Your task to perform on an android device: open the mobile data screen to see how much data has been used Image 0: 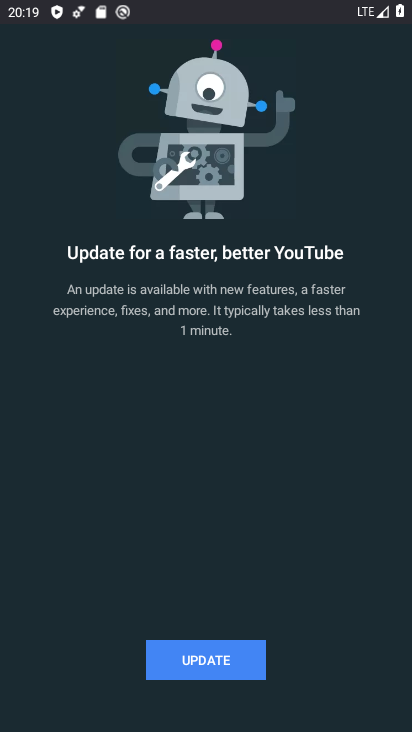
Step 0: press back button
Your task to perform on an android device: open the mobile data screen to see how much data has been used Image 1: 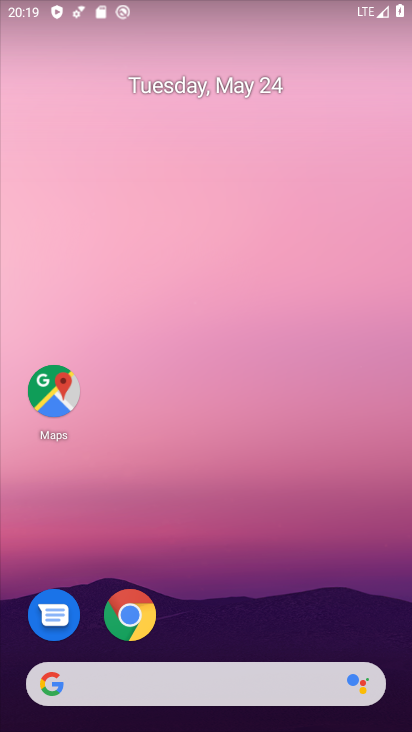
Step 1: drag from (283, 497) to (281, 248)
Your task to perform on an android device: open the mobile data screen to see how much data has been used Image 2: 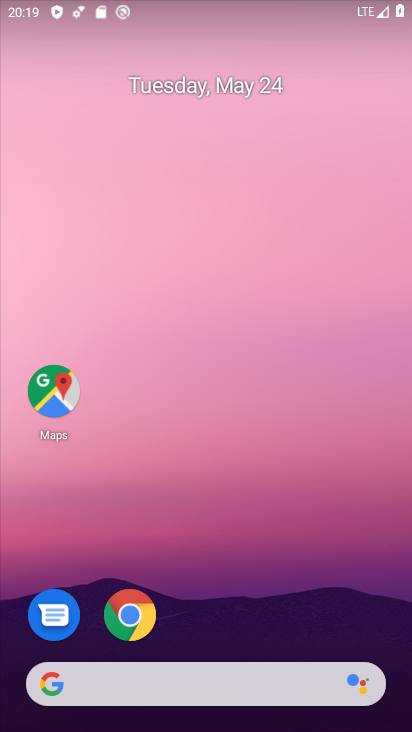
Step 2: drag from (242, 650) to (243, 271)
Your task to perform on an android device: open the mobile data screen to see how much data has been used Image 3: 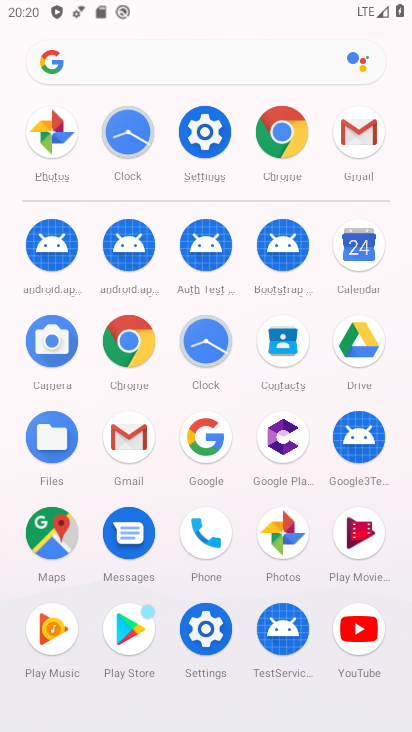
Step 3: click (197, 134)
Your task to perform on an android device: open the mobile data screen to see how much data has been used Image 4: 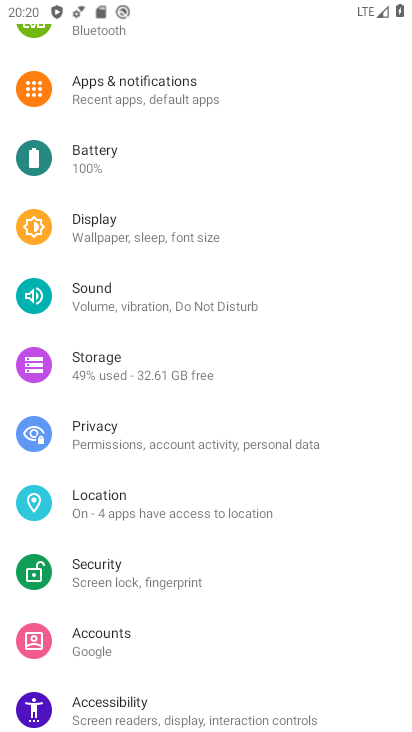
Step 4: drag from (160, 91) to (204, 641)
Your task to perform on an android device: open the mobile data screen to see how much data has been used Image 5: 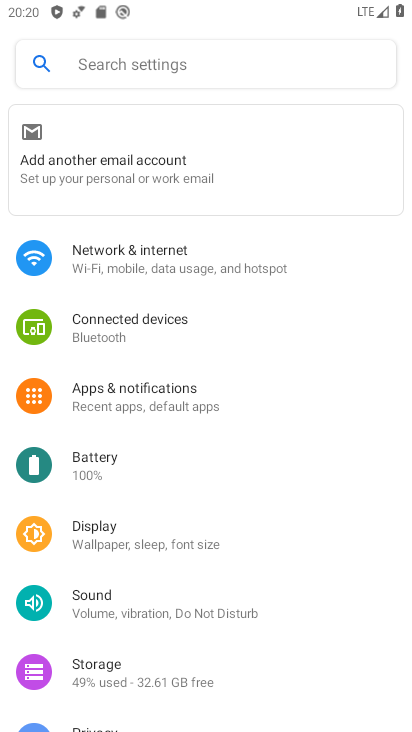
Step 5: click (170, 261)
Your task to perform on an android device: open the mobile data screen to see how much data has been used Image 6: 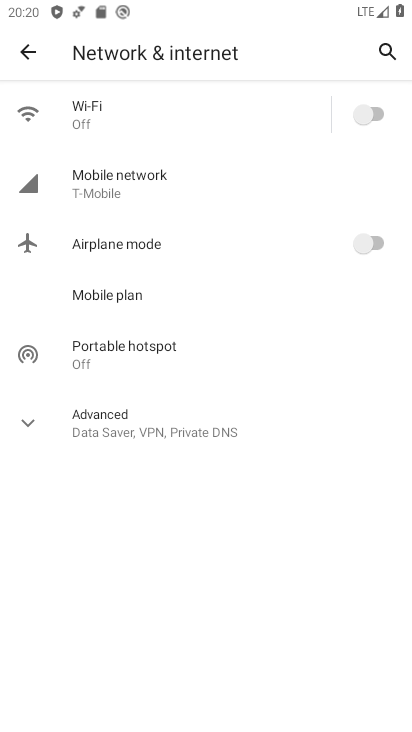
Step 6: click (143, 157)
Your task to perform on an android device: open the mobile data screen to see how much data has been used Image 7: 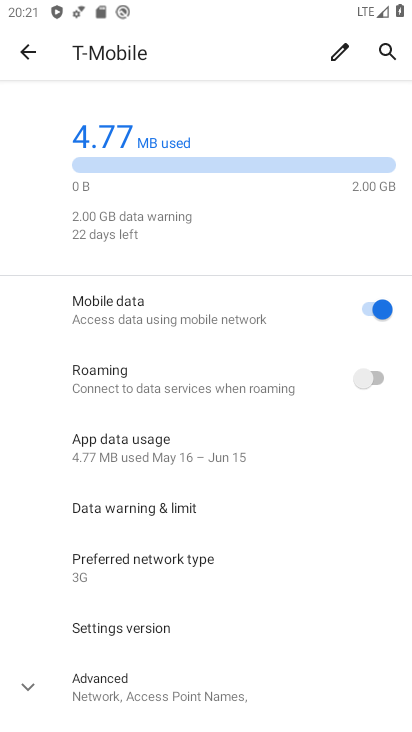
Step 7: task complete